Your task to perform on an android device: check the backup settings in the google photos Image 0: 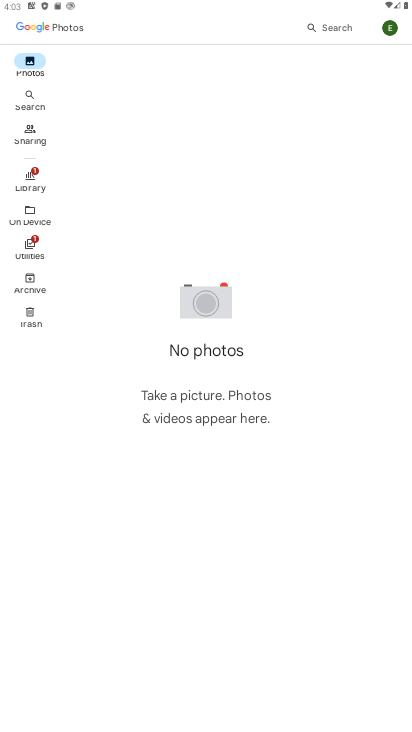
Step 0: click (390, 30)
Your task to perform on an android device: check the backup settings in the google photos Image 1: 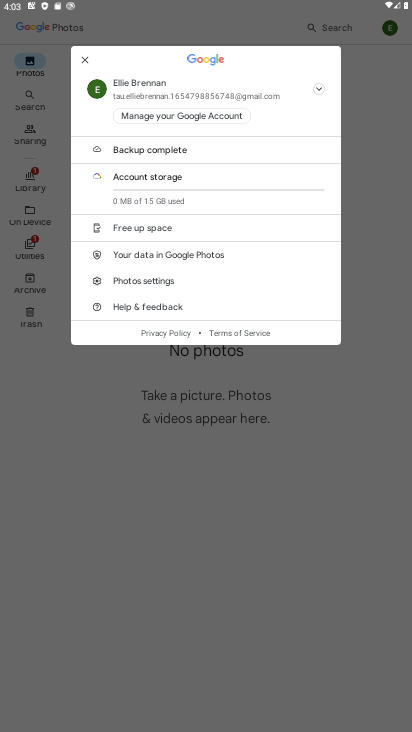
Step 1: click (144, 279)
Your task to perform on an android device: check the backup settings in the google photos Image 2: 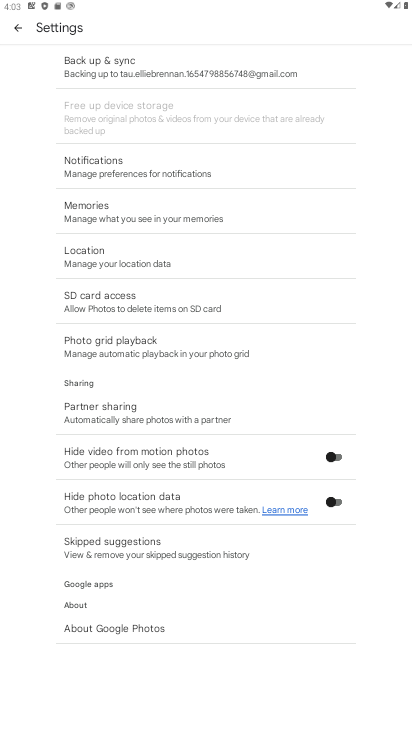
Step 2: click (118, 64)
Your task to perform on an android device: check the backup settings in the google photos Image 3: 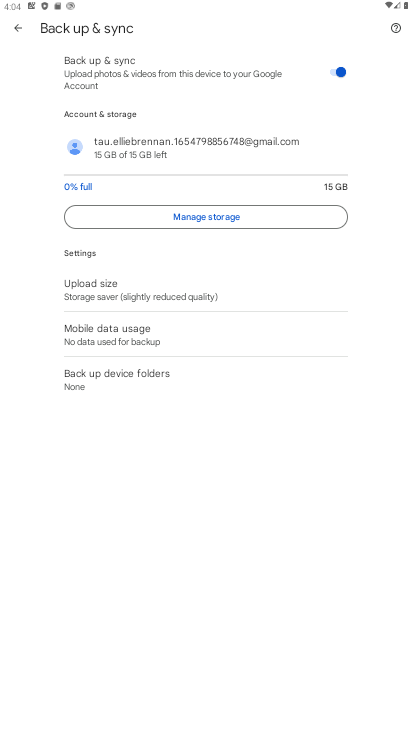
Step 3: task complete